Your task to perform on an android device: install app "NewsBreak: Local News & Alerts" Image 0: 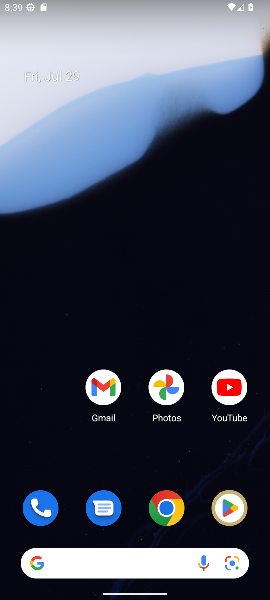
Step 0: click (225, 517)
Your task to perform on an android device: install app "NewsBreak: Local News & Alerts" Image 1: 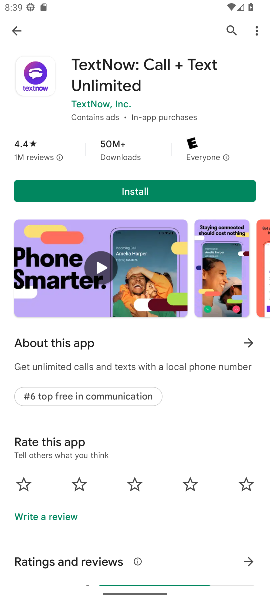
Step 1: click (226, 30)
Your task to perform on an android device: install app "NewsBreak: Local News & Alerts" Image 2: 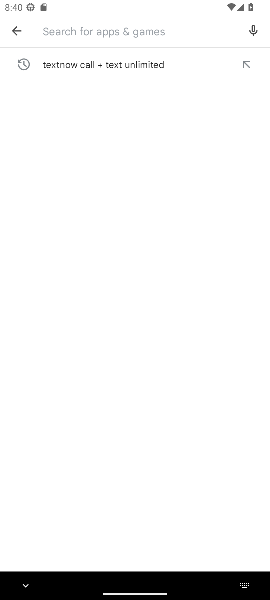
Step 2: type "NewsBreak: Local News & Alerts"
Your task to perform on an android device: install app "NewsBreak: Local News & Alerts" Image 3: 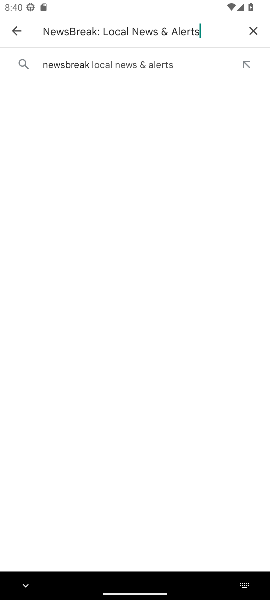
Step 3: click (48, 73)
Your task to perform on an android device: install app "NewsBreak: Local News & Alerts" Image 4: 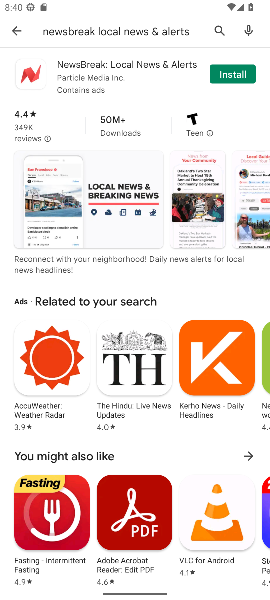
Step 4: click (95, 68)
Your task to perform on an android device: install app "NewsBreak: Local News & Alerts" Image 5: 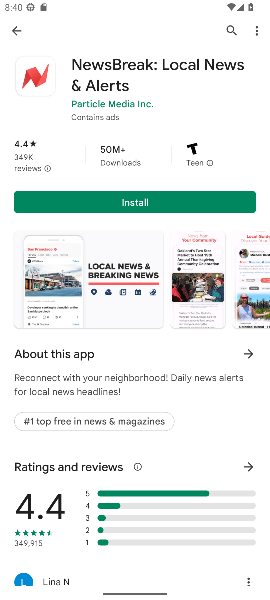
Step 5: click (159, 203)
Your task to perform on an android device: install app "NewsBreak: Local News & Alerts" Image 6: 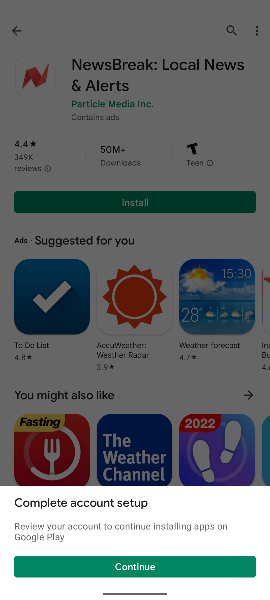
Step 6: click (117, 572)
Your task to perform on an android device: install app "NewsBreak: Local News & Alerts" Image 7: 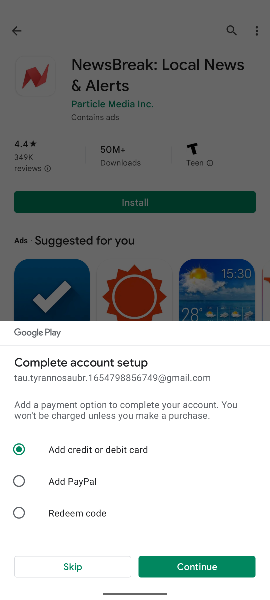
Step 7: click (77, 569)
Your task to perform on an android device: install app "NewsBreak: Local News & Alerts" Image 8: 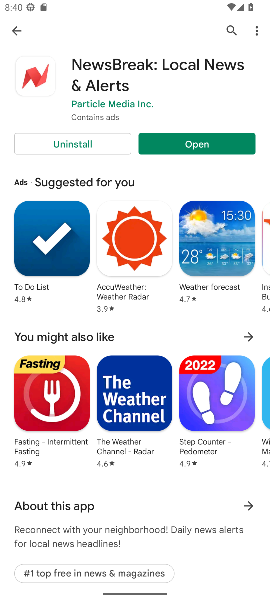
Step 8: task complete